Your task to perform on an android device: What's on my calendar today? Image 0: 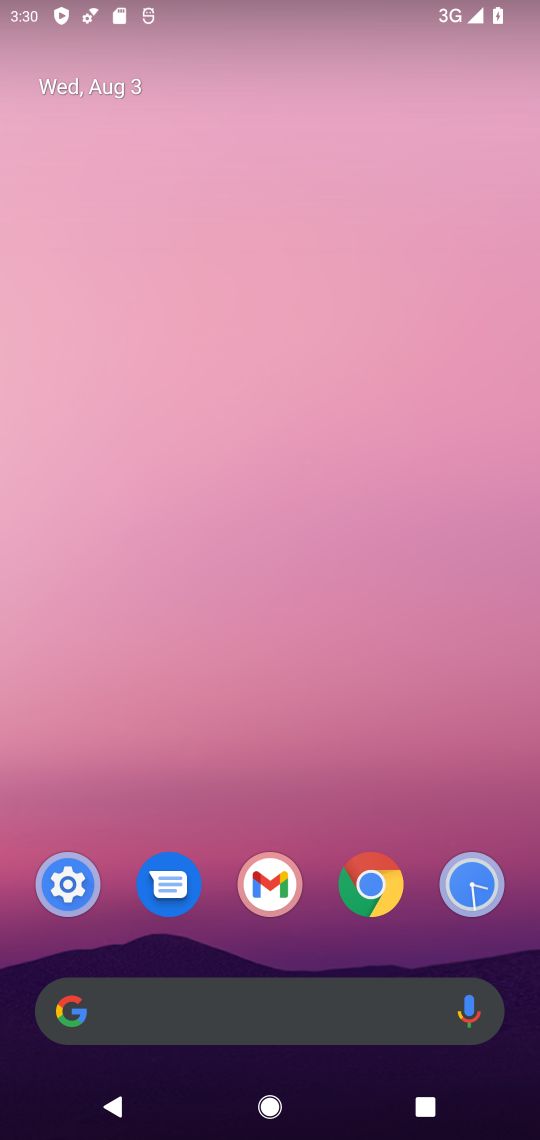
Step 0: drag from (234, 973) to (255, 105)
Your task to perform on an android device: What's on my calendar today? Image 1: 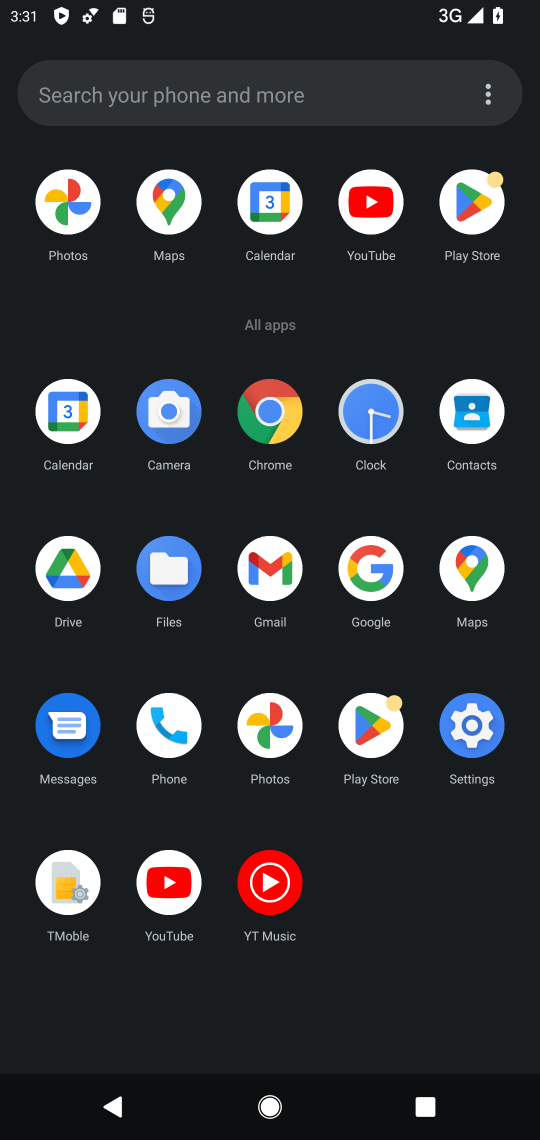
Step 1: click (265, 189)
Your task to perform on an android device: What's on my calendar today? Image 2: 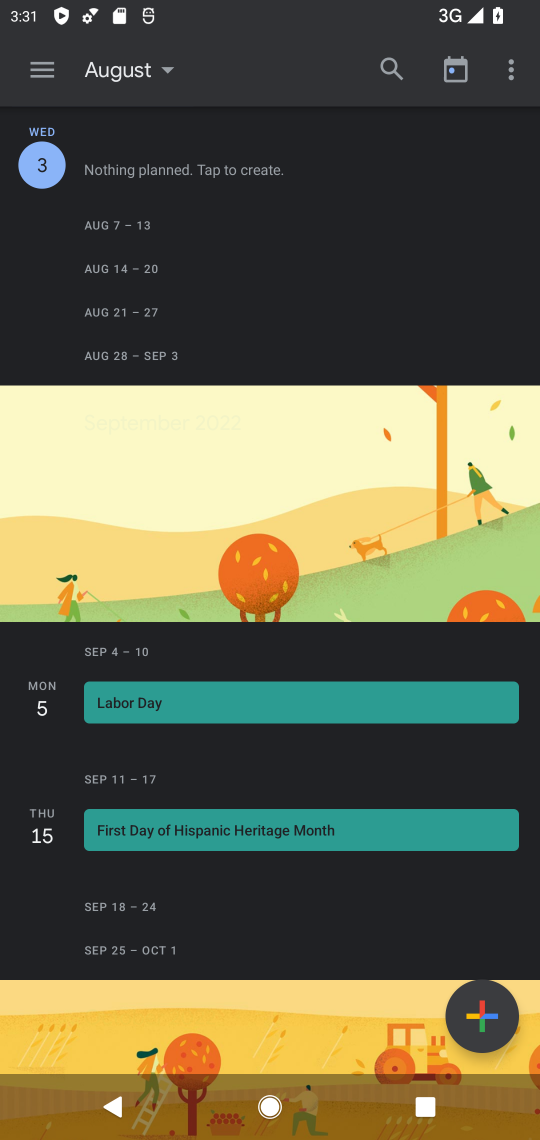
Step 2: task complete